Your task to perform on an android device: toggle location history Image 0: 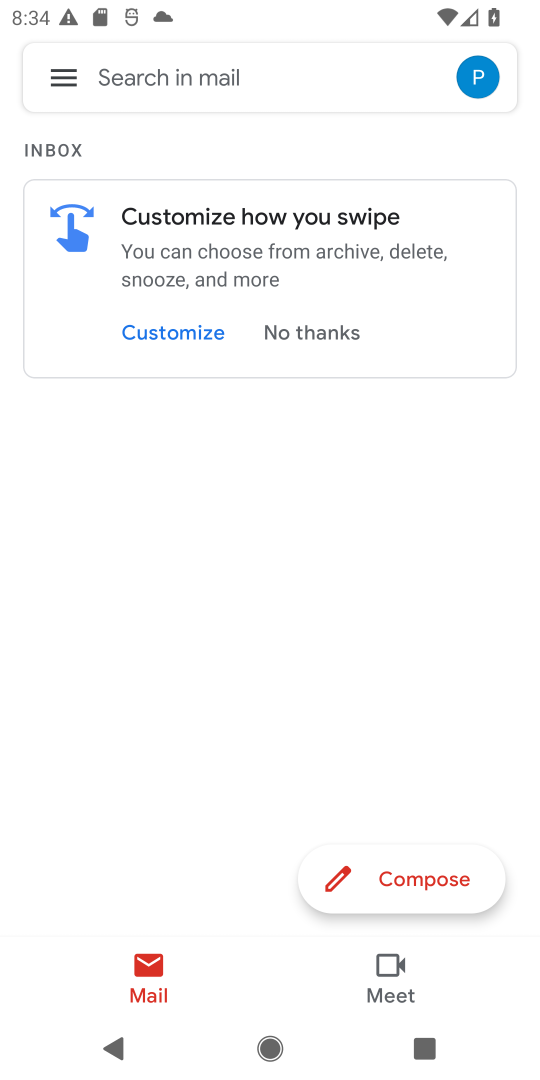
Step 0: press home button
Your task to perform on an android device: toggle location history Image 1: 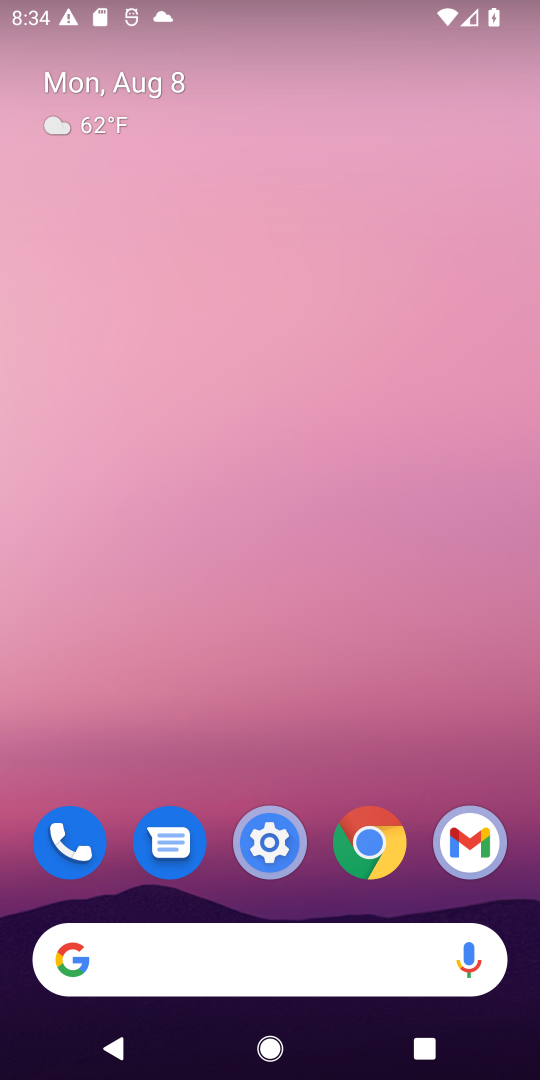
Step 1: drag from (290, 715) to (346, 3)
Your task to perform on an android device: toggle location history Image 2: 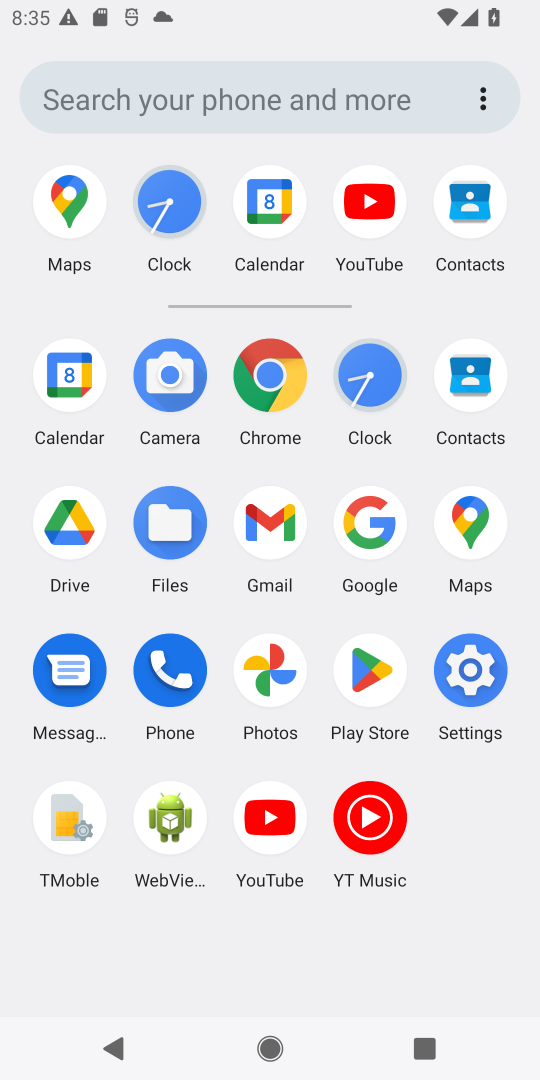
Step 2: click (468, 666)
Your task to perform on an android device: toggle location history Image 3: 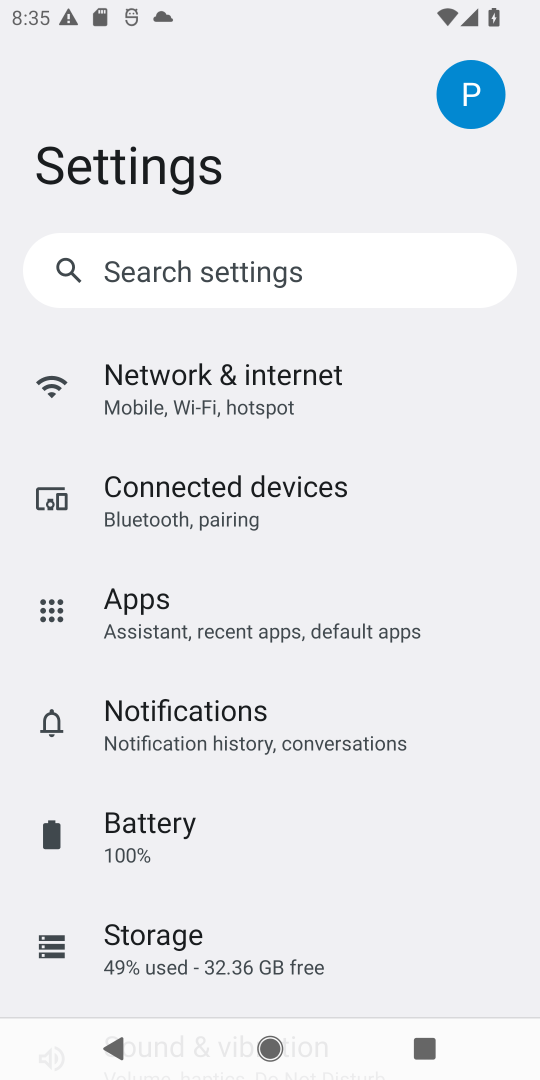
Step 3: drag from (296, 811) to (352, 0)
Your task to perform on an android device: toggle location history Image 4: 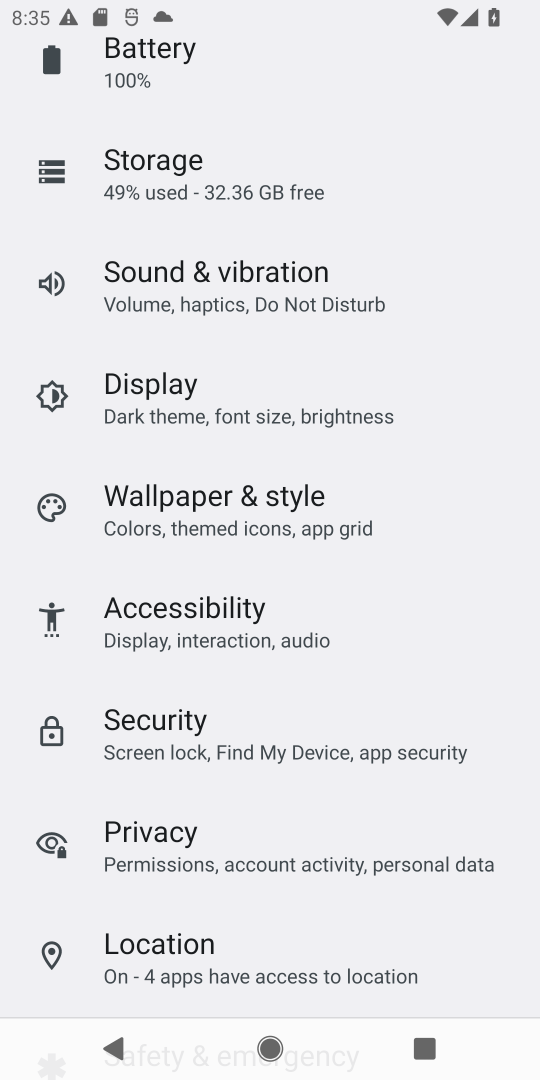
Step 4: click (256, 939)
Your task to perform on an android device: toggle location history Image 5: 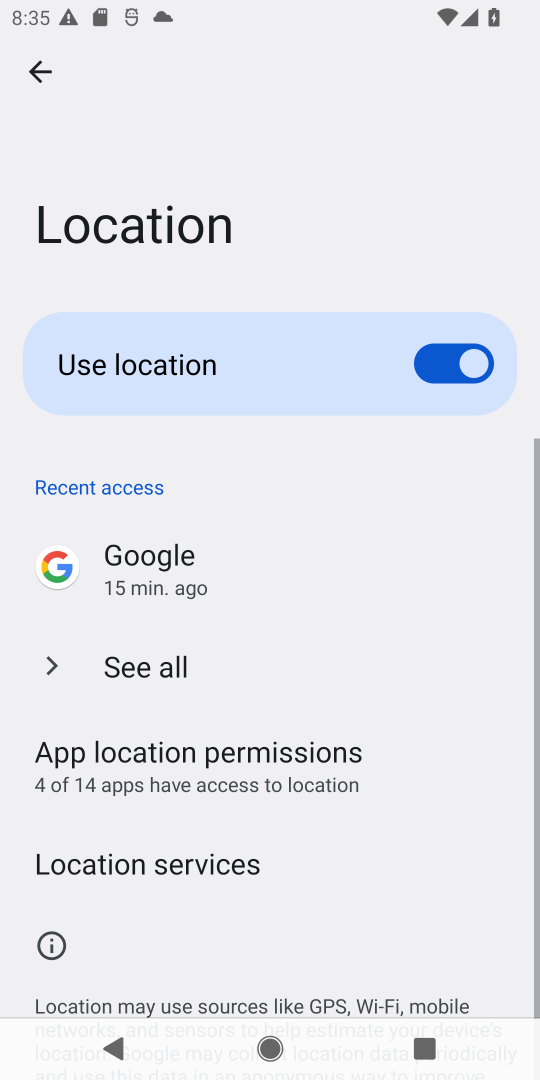
Step 5: drag from (322, 853) to (387, 142)
Your task to perform on an android device: toggle location history Image 6: 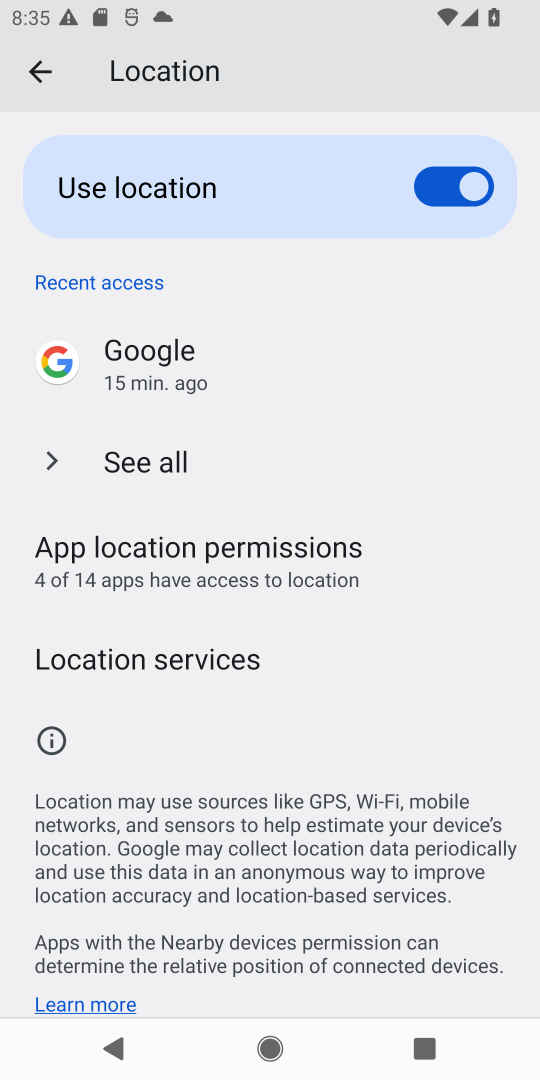
Step 6: click (140, 656)
Your task to perform on an android device: toggle location history Image 7: 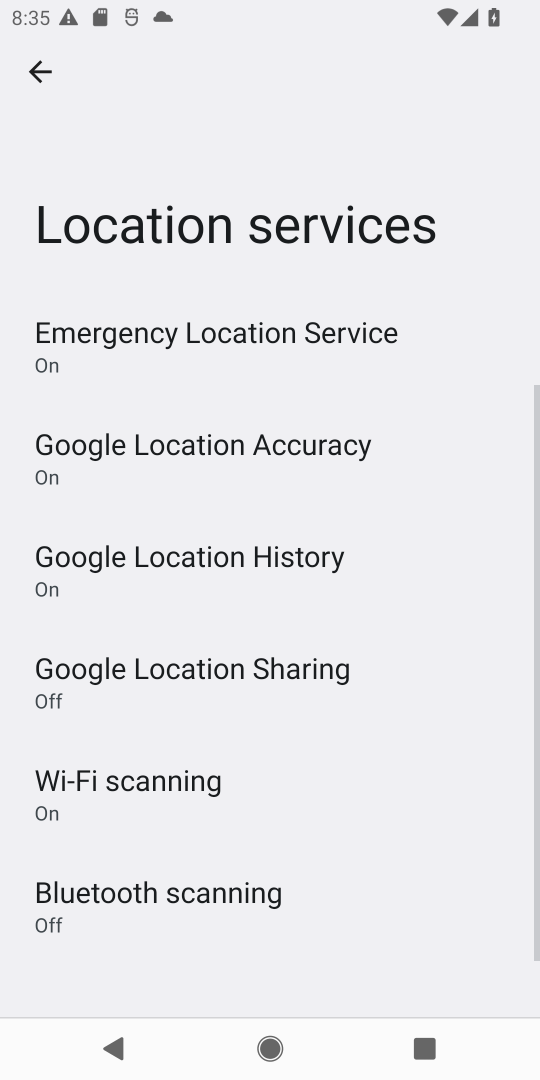
Step 7: task complete